Your task to perform on an android device: turn off wifi Image 0: 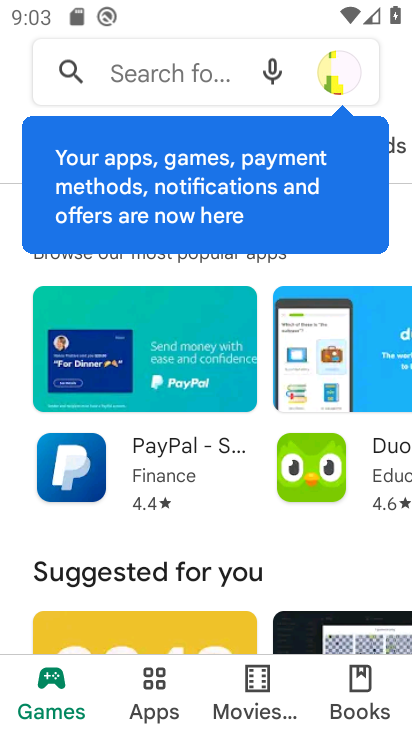
Step 0: press home button
Your task to perform on an android device: turn off wifi Image 1: 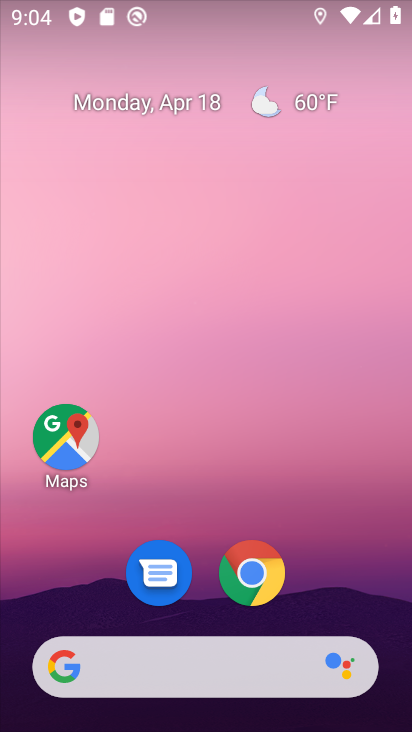
Step 1: drag from (331, 590) to (320, 203)
Your task to perform on an android device: turn off wifi Image 2: 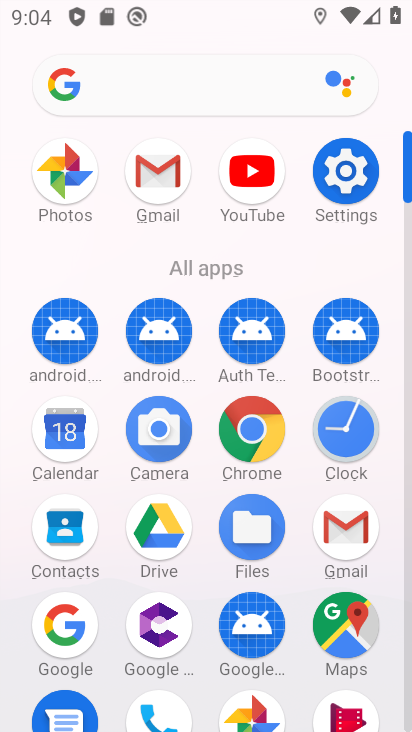
Step 2: click (336, 193)
Your task to perform on an android device: turn off wifi Image 3: 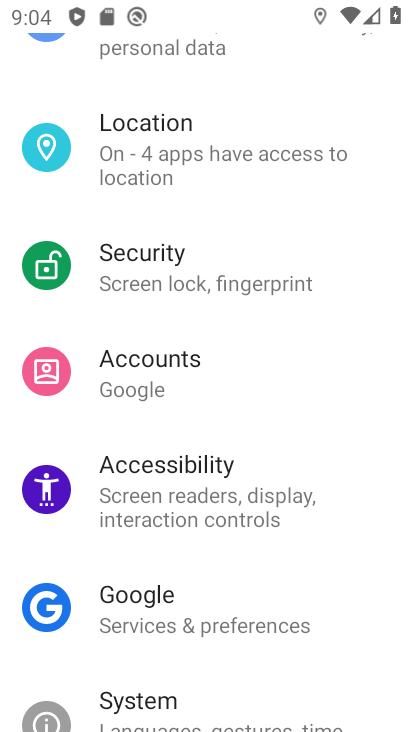
Step 3: drag from (224, 149) to (132, 660)
Your task to perform on an android device: turn off wifi Image 4: 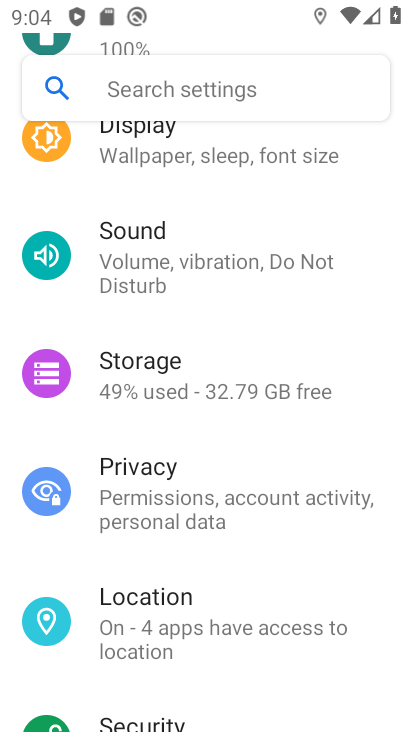
Step 4: drag from (198, 222) to (140, 673)
Your task to perform on an android device: turn off wifi Image 5: 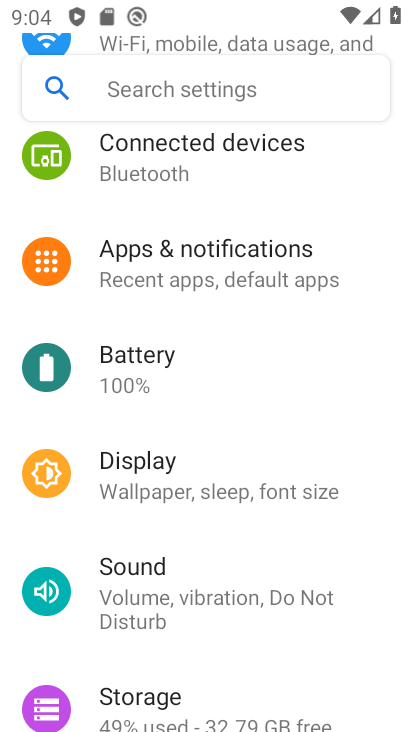
Step 5: drag from (184, 169) to (134, 659)
Your task to perform on an android device: turn off wifi Image 6: 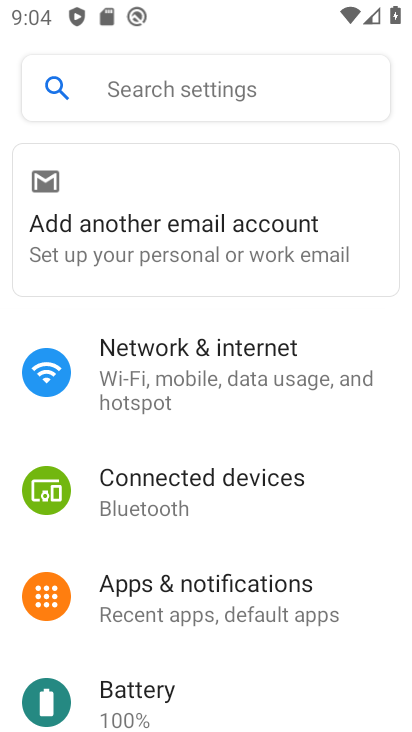
Step 6: click (136, 366)
Your task to perform on an android device: turn off wifi Image 7: 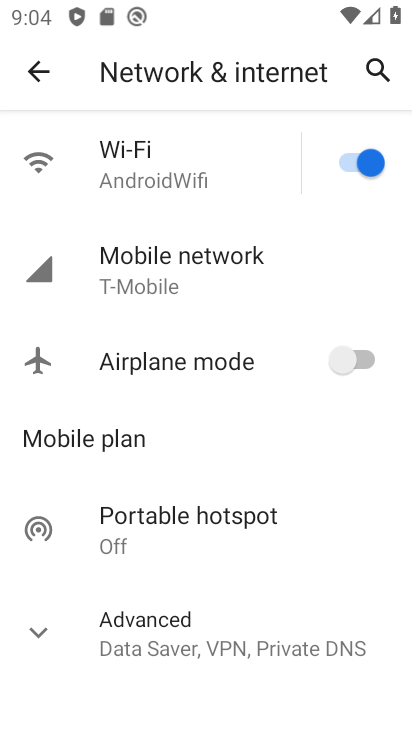
Step 7: click (365, 165)
Your task to perform on an android device: turn off wifi Image 8: 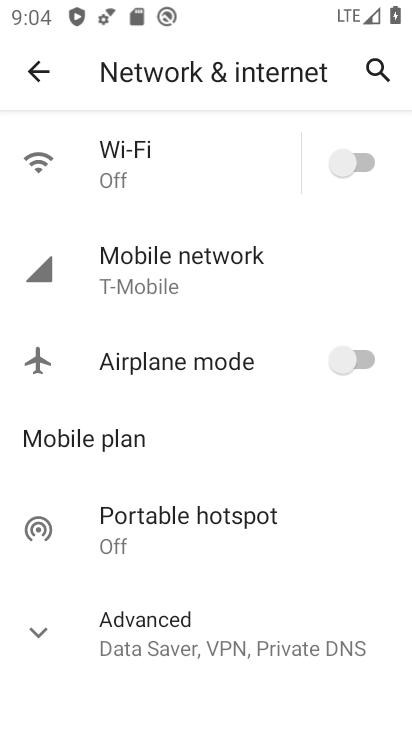
Step 8: task complete